Your task to perform on an android device: Open the calendar and show me this week's events? Image 0: 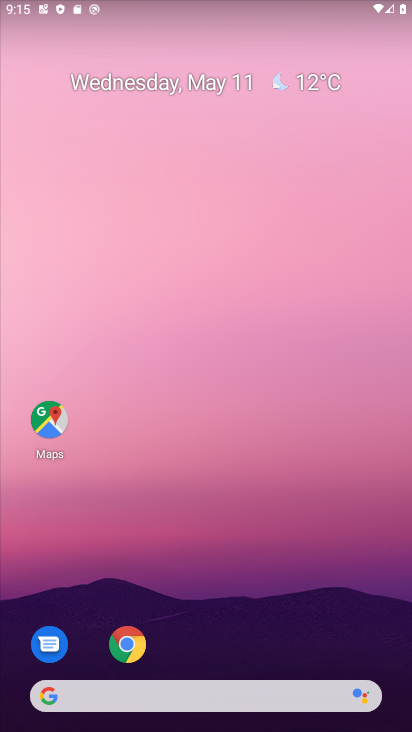
Step 0: drag from (195, 641) to (184, 237)
Your task to perform on an android device: Open the calendar and show me this week's events? Image 1: 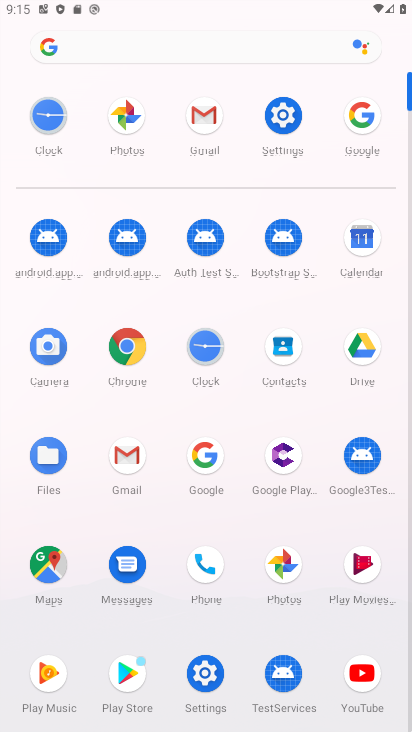
Step 1: click (364, 242)
Your task to perform on an android device: Open the calendar and show me this week's events? Image 2: 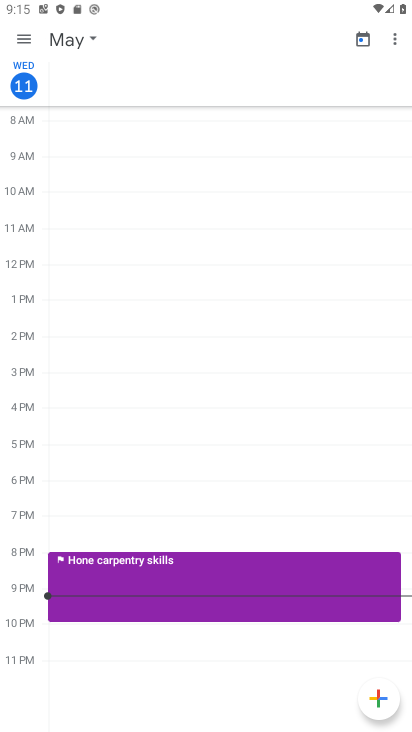
Step 2: click (28, 33)
Your task to perform on an android device: Open the calendar and show me this week's events? Image 3: 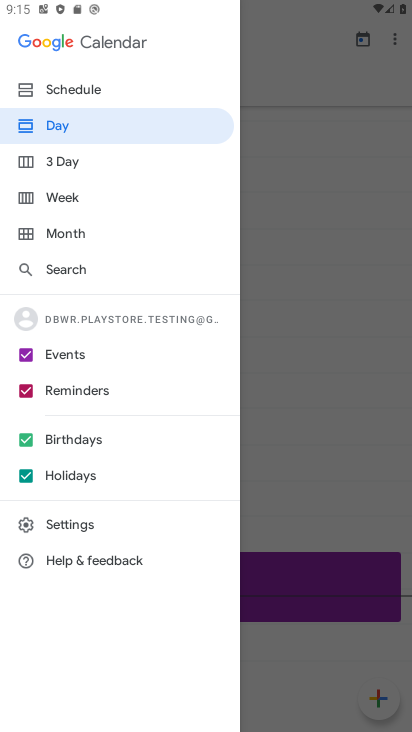
Step 3: click (50, 196)
Your task to perform on an android device: Open the calendar and show me this week's events? Image 4: 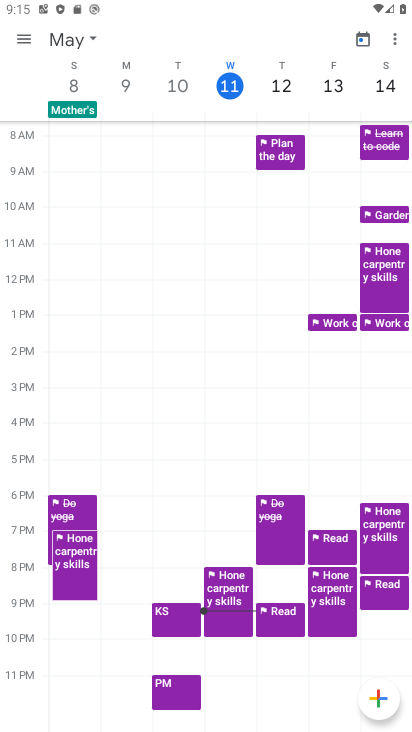
Step 4: task complete